Your task to perform on an android device: Open the stopwatch Image 0: 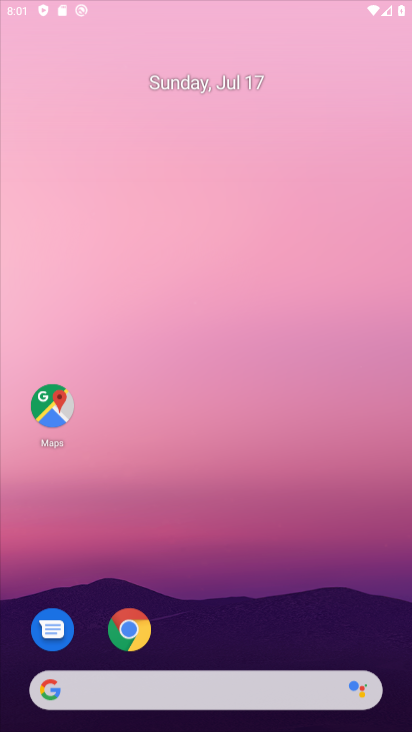
Step 0: click (334, 85)
Your task to perform on an android device: Open the stopwatch Image 1: 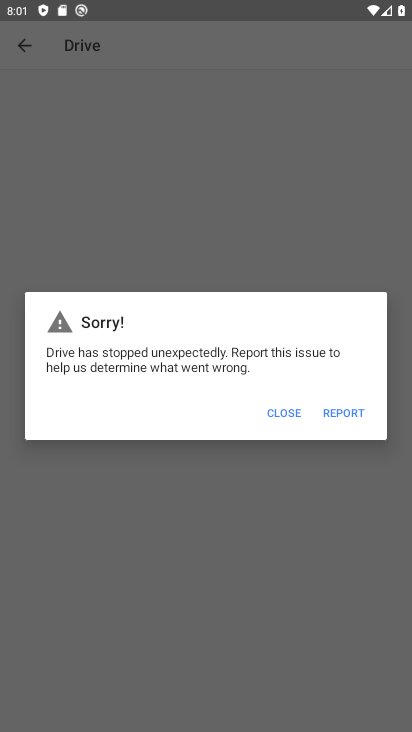
Step 1: press home button
Your task to perform on an android device: Open the stopwatch Image 2: 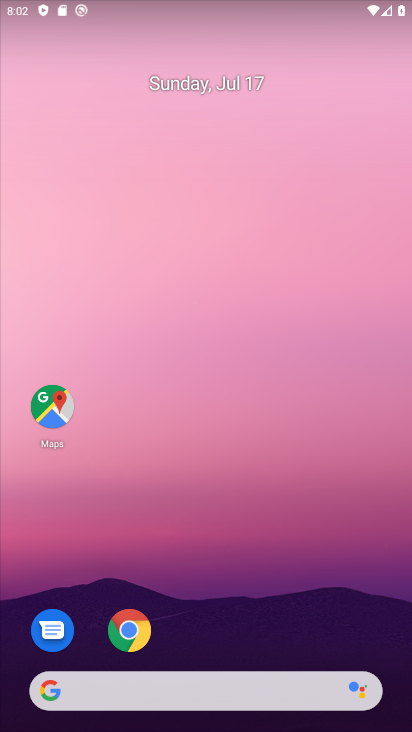
Step 2: drag from (295, 621) to (342, 186)
Your task to perform on an android device: Open the stopwatch Image 3: 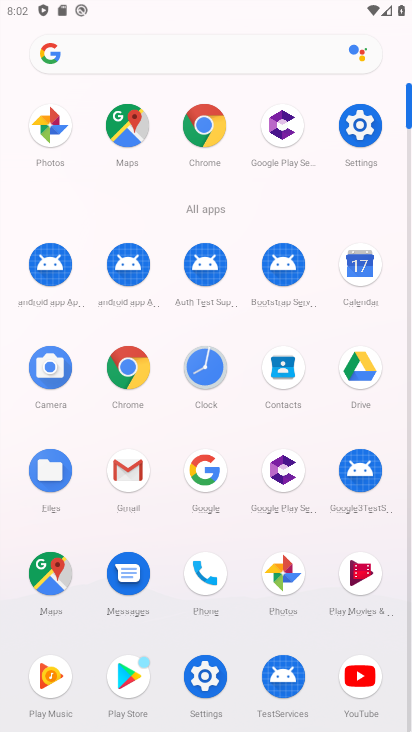
Step 3: click (209, 368)
Your task to perform on an android device: Open the stopwatch Image 4: 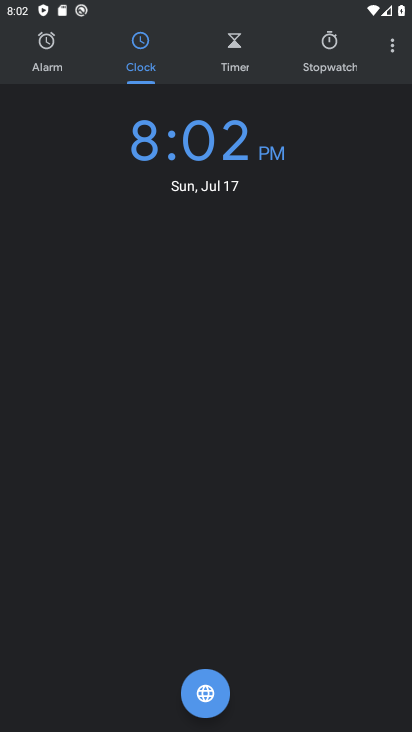
Step 4: click (329, 55)
Your task to perform on an android device: Open the stopwatch Image 5: 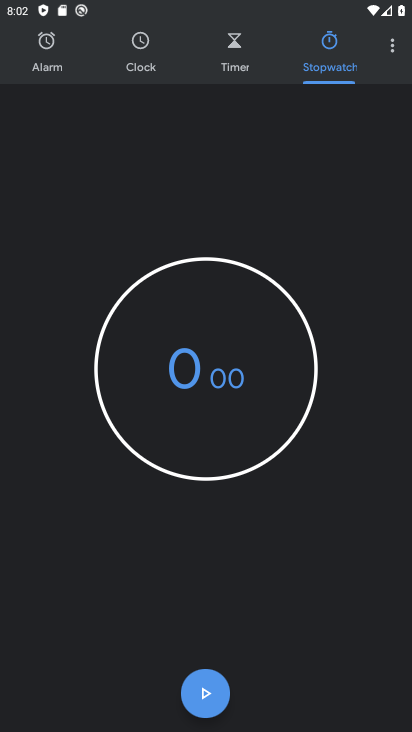
Step 5: task complete